Your task to perform on an android device: Open Reddit.com Image 0: 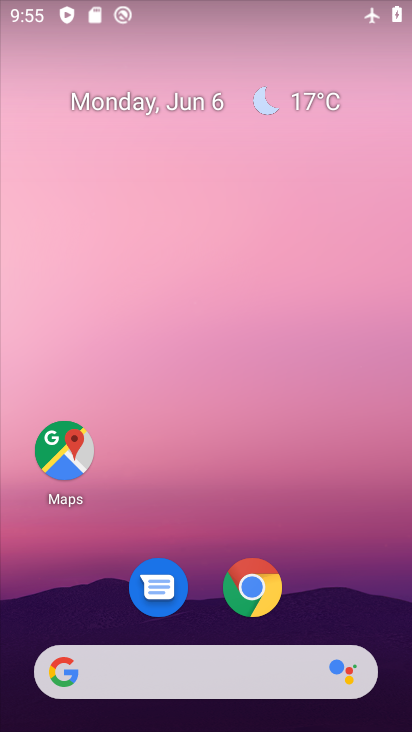
Step 0: click (258, 606)
Your task to perform on an android device: Open Reddit.com Image 1: 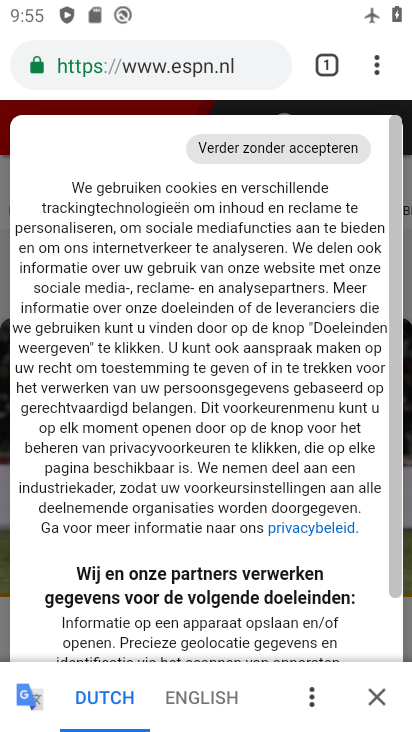
Step 1: click (151, 63)
Your task to perform on an android device: Open Reddit.com Image 2: 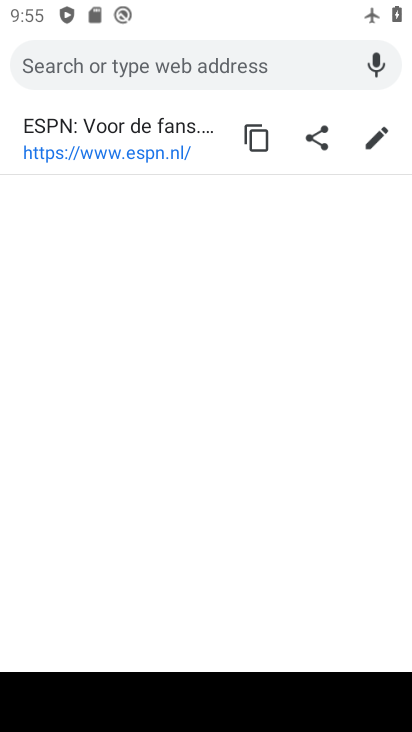
Step 2: type "reddit.com"
Your task to perform on an android device: Open Reddit.com Image 3: 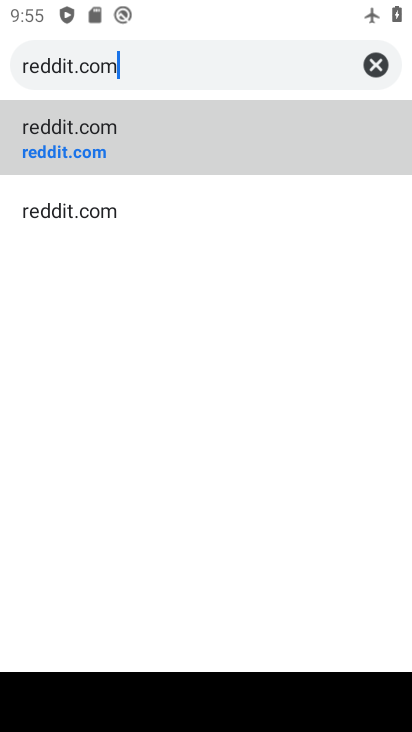
Step 3: click (66, 152)
Your task to perform on an android device: Open Reddit.com Image 4: 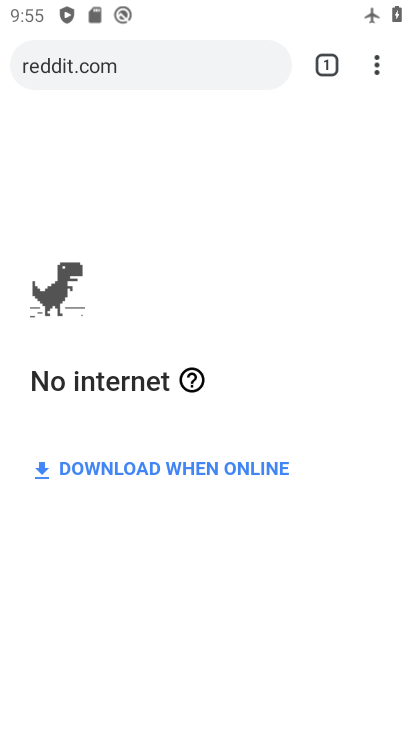
Step 4: task complete